Your task to perform on an android device: change timer sound Image 0: 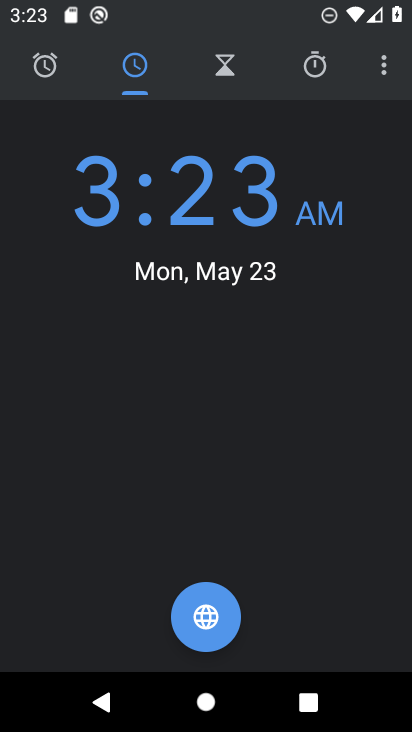
Step 0: press home button
Your task to perform on an android device: change timer sound Image 1: 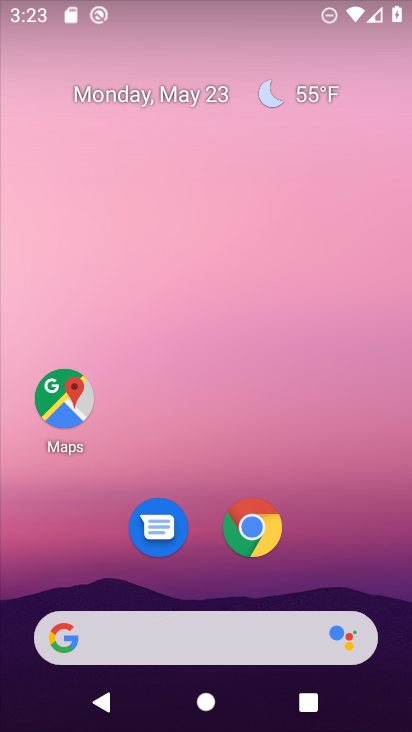
Step 1: drag from (225, 574) to (271, 58)
Your task to perform on an android device: change timer sound Image 2: 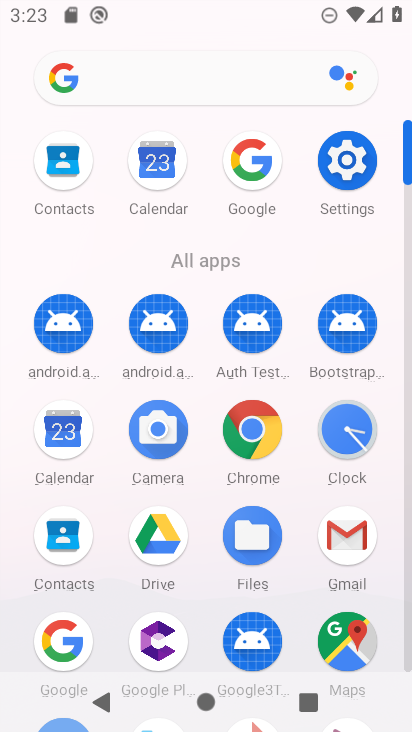
Step 2: click (346, 423)
Your task to perform on an android device: change timer sound Image 3: 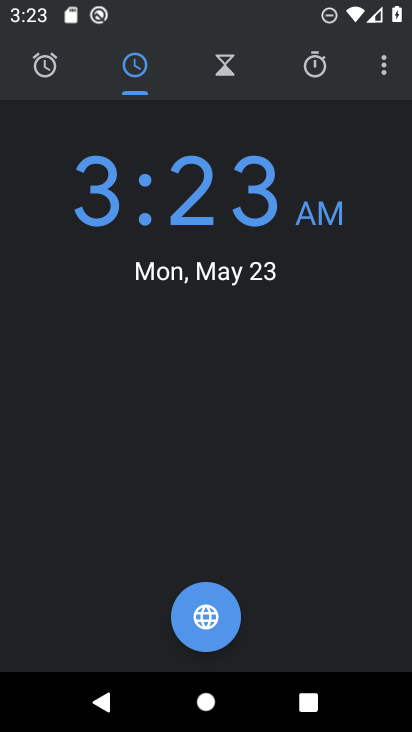
Step 3: click (228, 63)
Your task to perform on an android device: change timer sound Image 4: 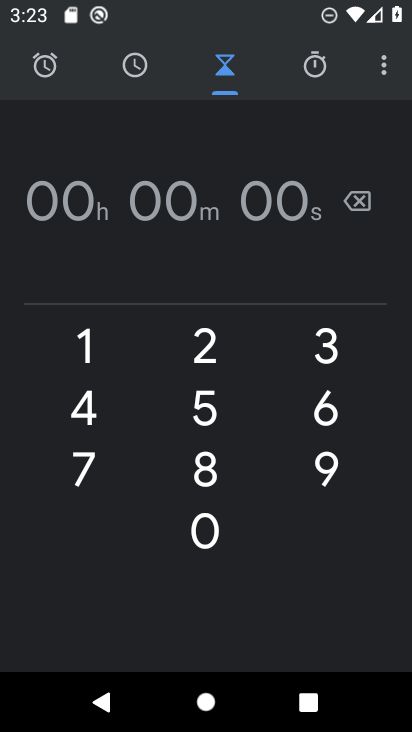
Step 4: click (202, 334)
Your task to perform on an android device: change timer sound Image 5: 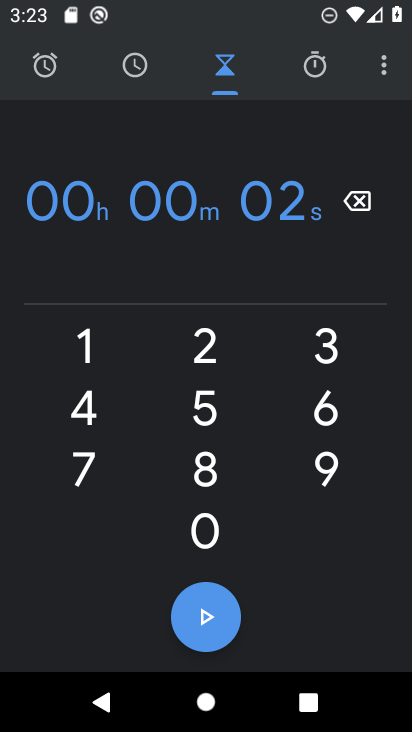
Step 5: click (196, 534)
Your task to perform on an android device: change timer sound Image 6: 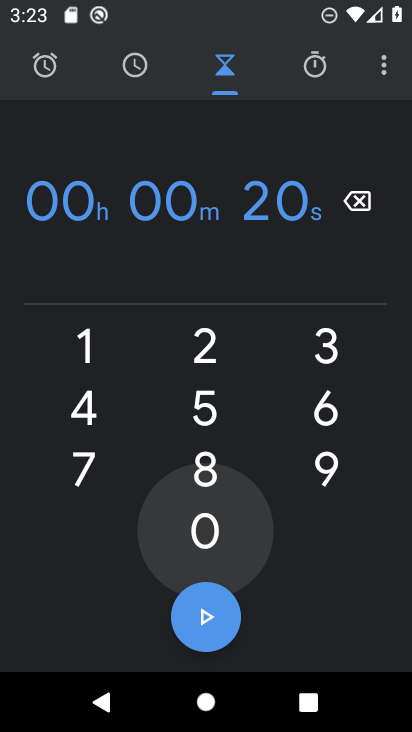
Step 6: click (196, 534)
Your task to perform on an android device: change timer sound Image 7: 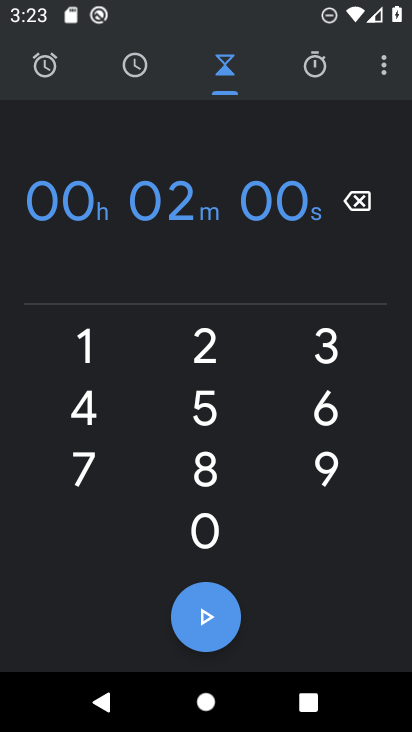
Step 7: click (196, 534)
Your task to perform on an android device: change timer sound Image 8: 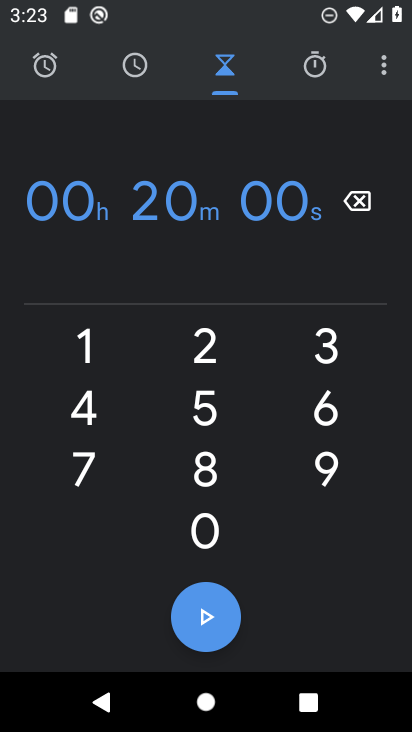
Step 8: click (199, 621)
Your task to perform on an android device: change timer sound Image 9: 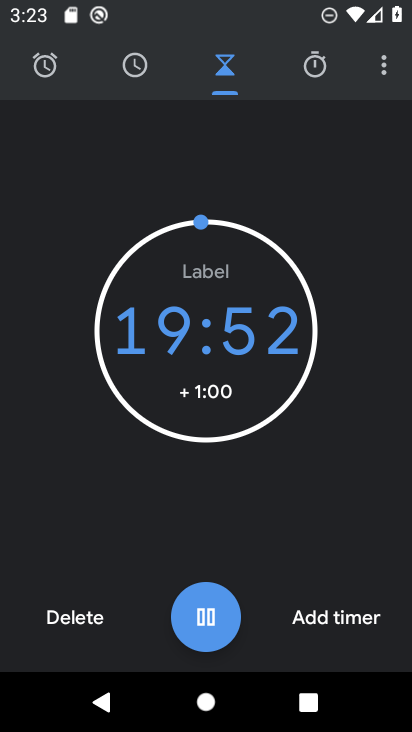
Step 9: task complete